Your task to perform on an android device: Toggle the flashlight Image 0: 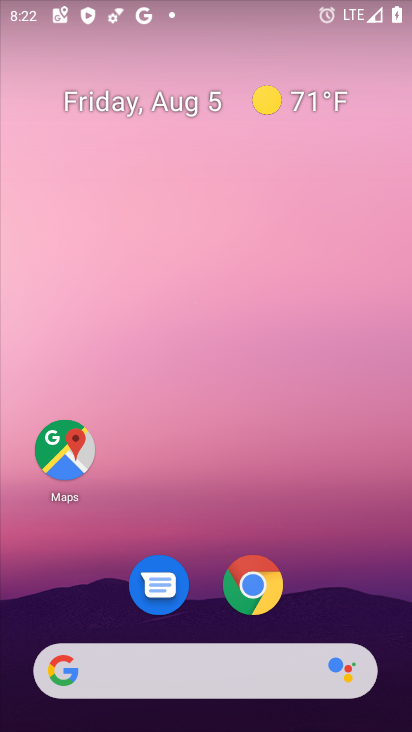
Step 0: drag from (239, 505) to (234, 16)
Your task to perform on an android device: Toggle the flashlight Image 1: 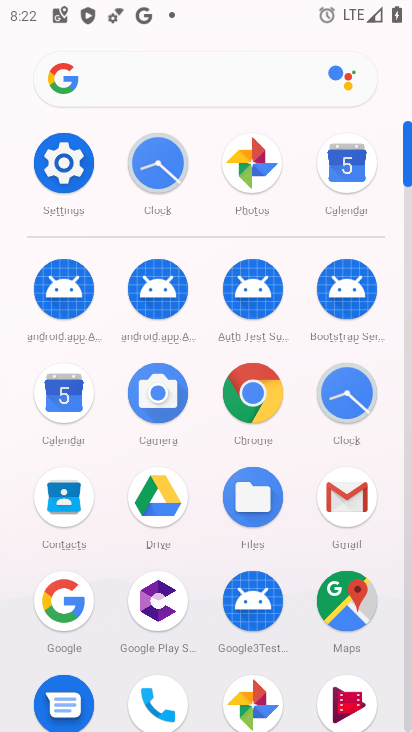
Step 1: click (69, 159)
Your task to perform on an android device: Toggle the flashlight Image 2: 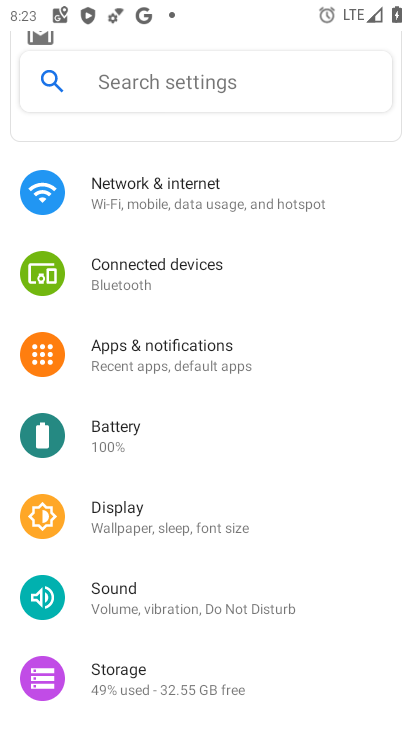
Step 2: drag from (243, 353) to (228, 571)
Your task to perform on an android device: Toggle the flashlight Image 3: 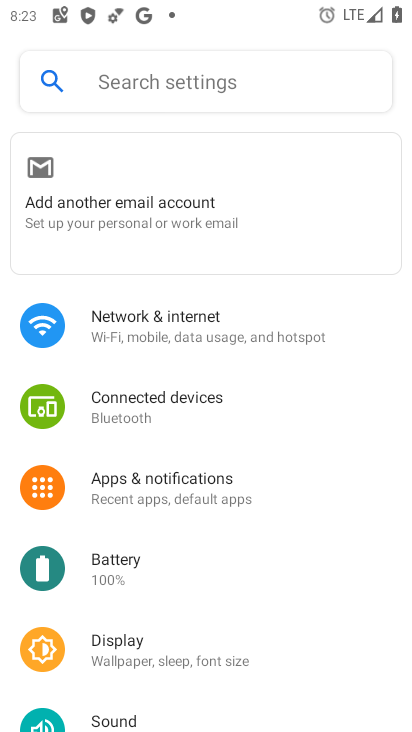
Step 3: click (249, 75)
Your task to perform on an android device: Toggle the flashlight Image 4: 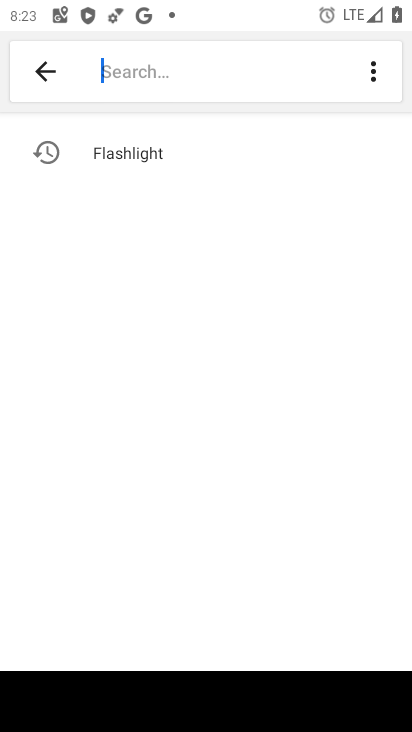
Step 4: type "Flashlight"
Your task to perform on an android device: Toggle the flashlight Image 5: 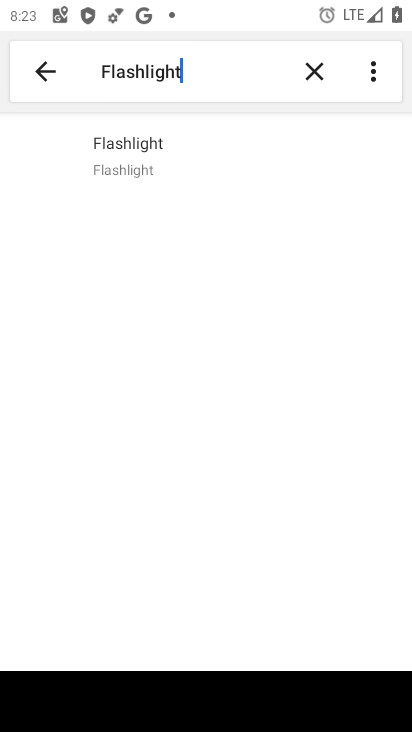
Step 5: click (156, 156)
Your task to perform on an android device: Toggle the flashlight Image 6: 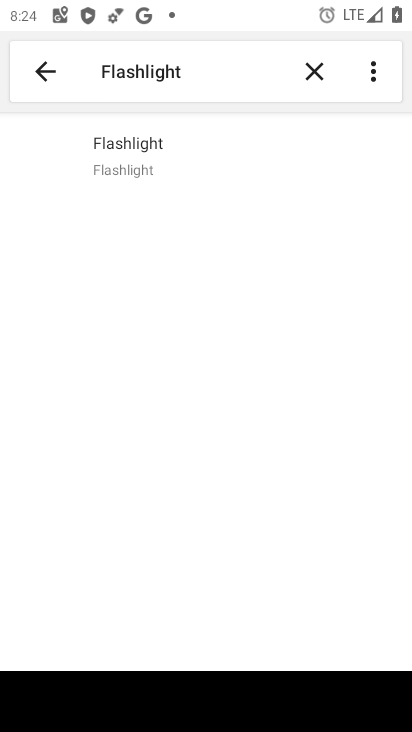
Step 6: click (139, 153)
Your task to perform on an android device: Toggle the flashlight Image 7: 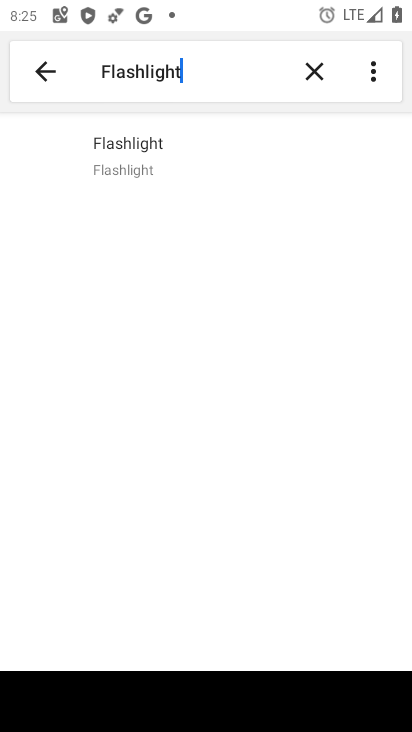
Step 7: task complete